Your task to perform on an android device: Is it going to rain today? Image 0: 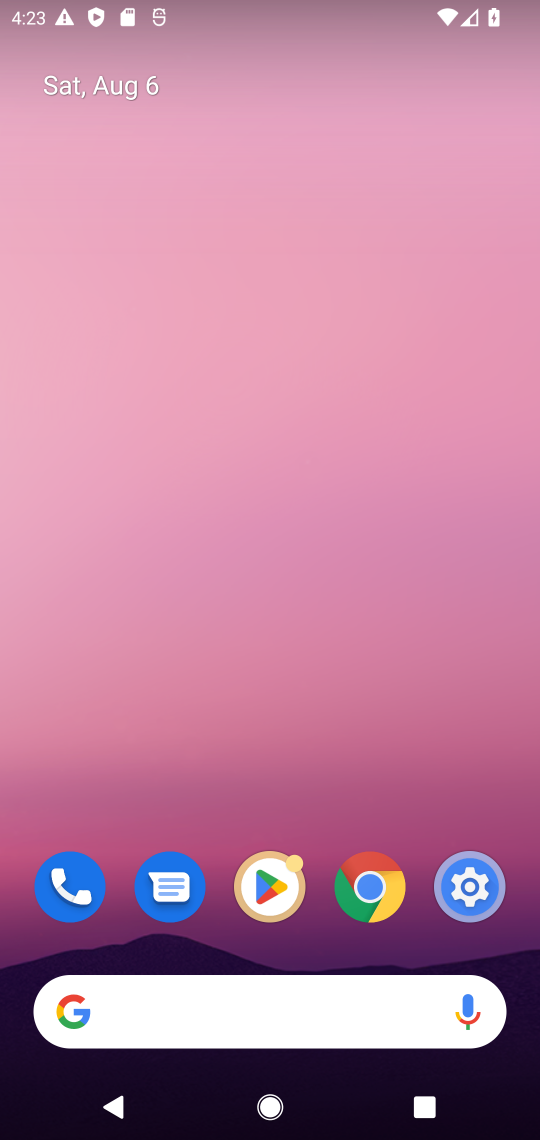
Step 0: drag from (252, 1012) to (257, 143)
Your task to perform on an android device: Is it going to rain today? Image 1: 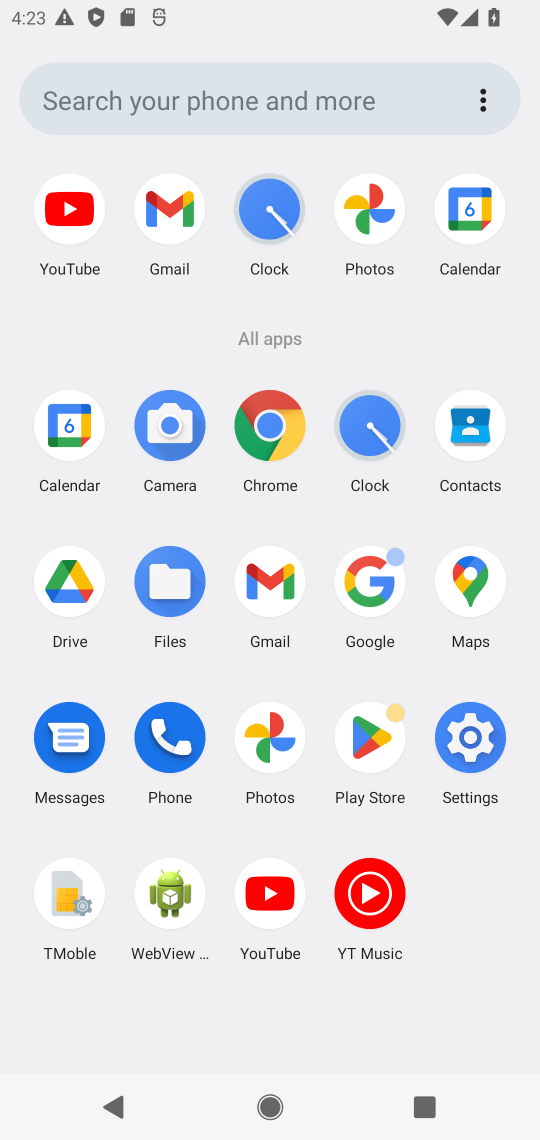
Step 1: click (278, 418)
Your task to perform on an android device: Is it going to rain today? Image 2: 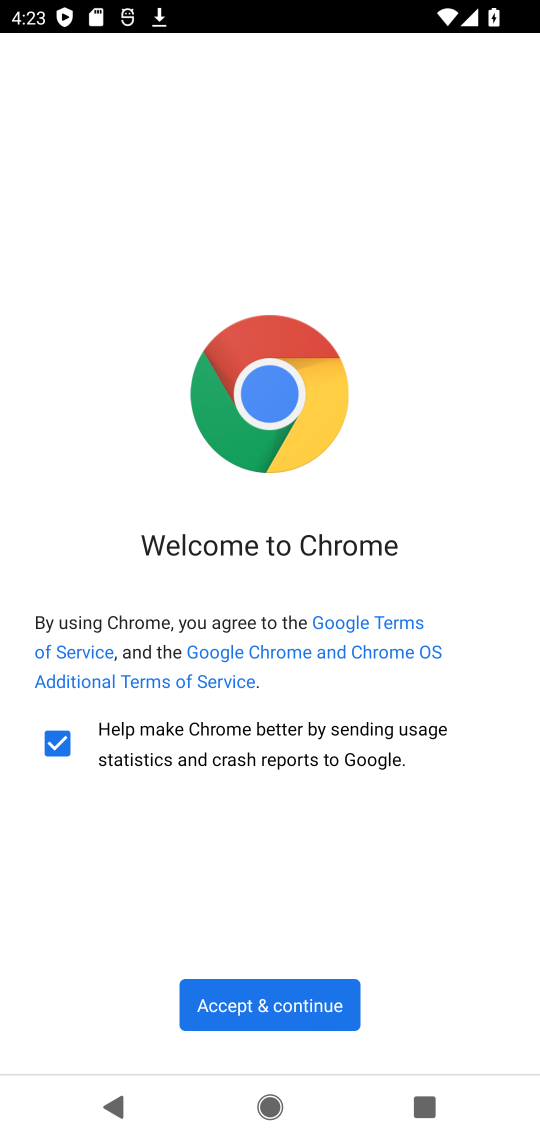
Step 2: click (271, 1018)
Your task to perform on an android device: Is it going to rain today? Image 3: 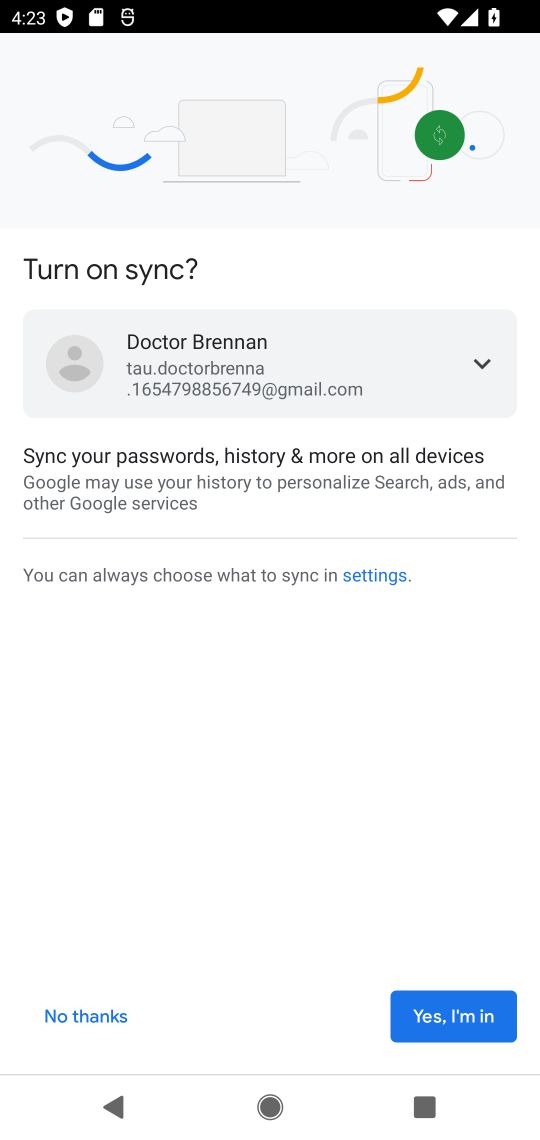
Step 3: click (430, 1029)
Your task to perform on an android device: Is it going to rain today? Image 4: 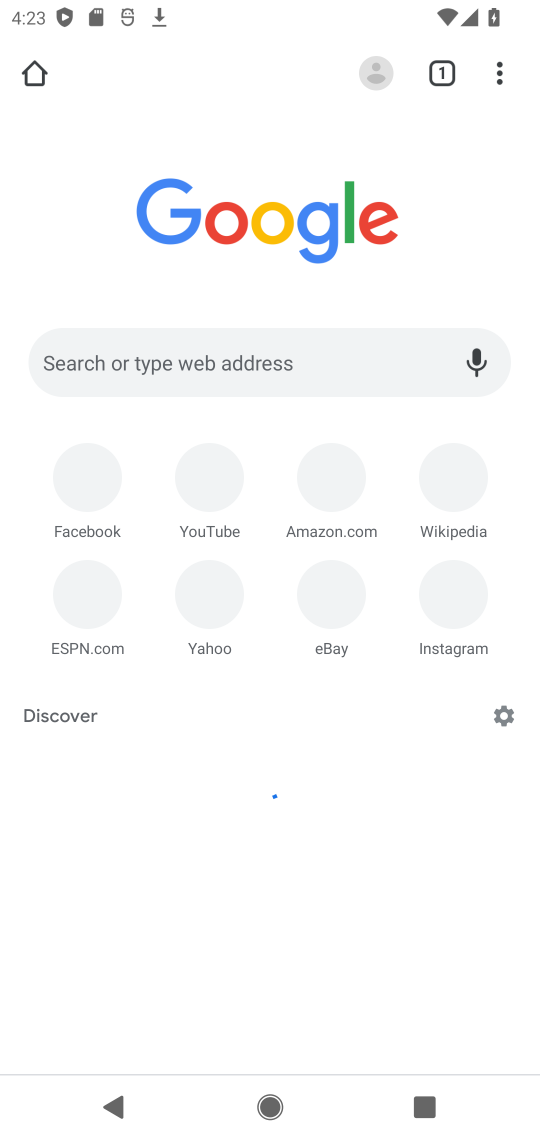
Step 4: click (225, 358)
Your task to perform on an android device: Is it going to rain today? Image 5: 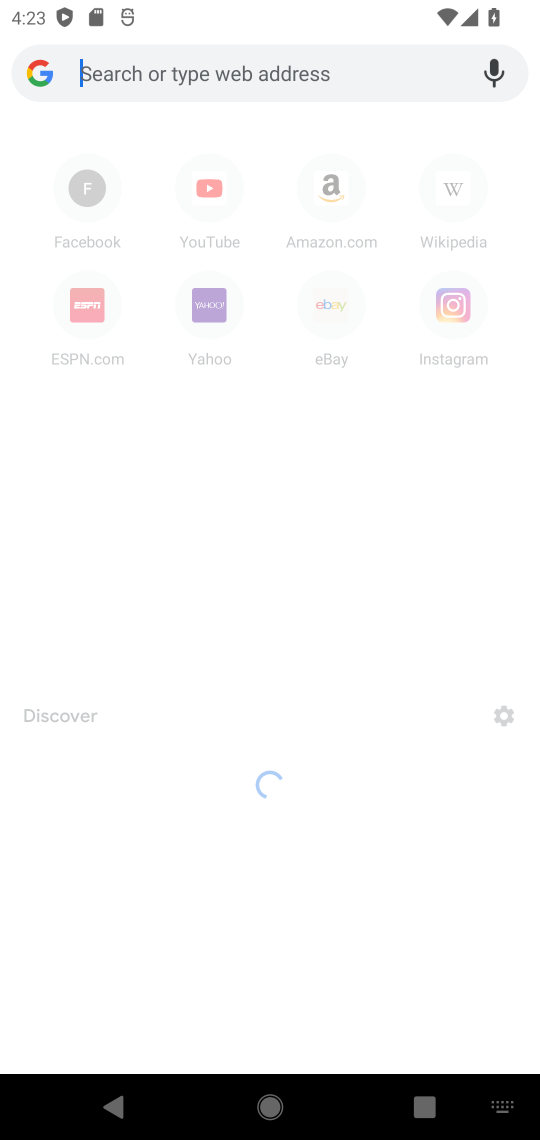
Step 5: type "weather today"
Your task to perform on an android device: Is it going to rain today? Image 6: 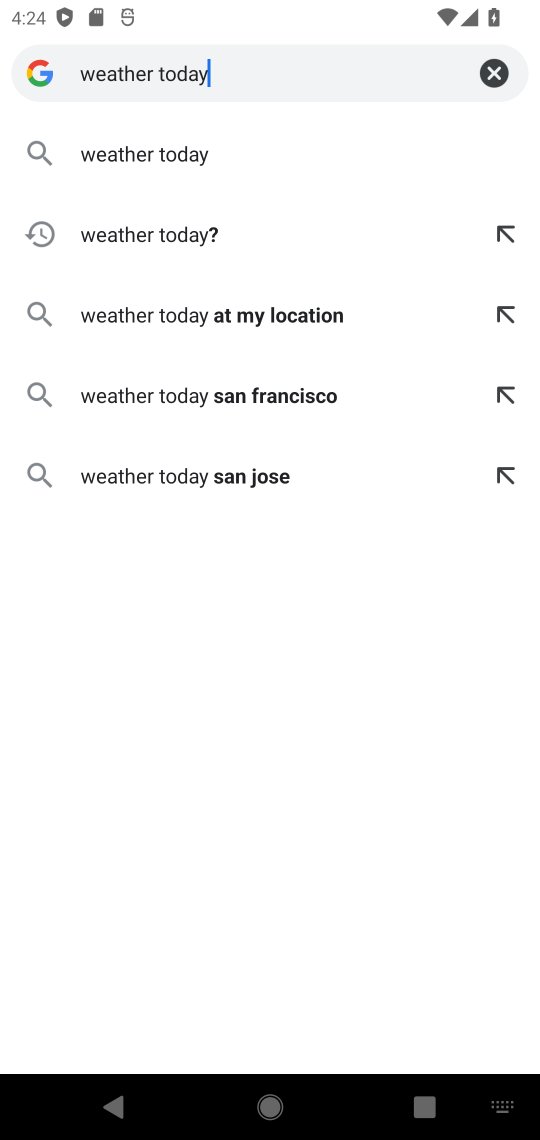
Step 6: click (154, 161)
Your task to perform on an android device: Is it going to rain today? Image 7: 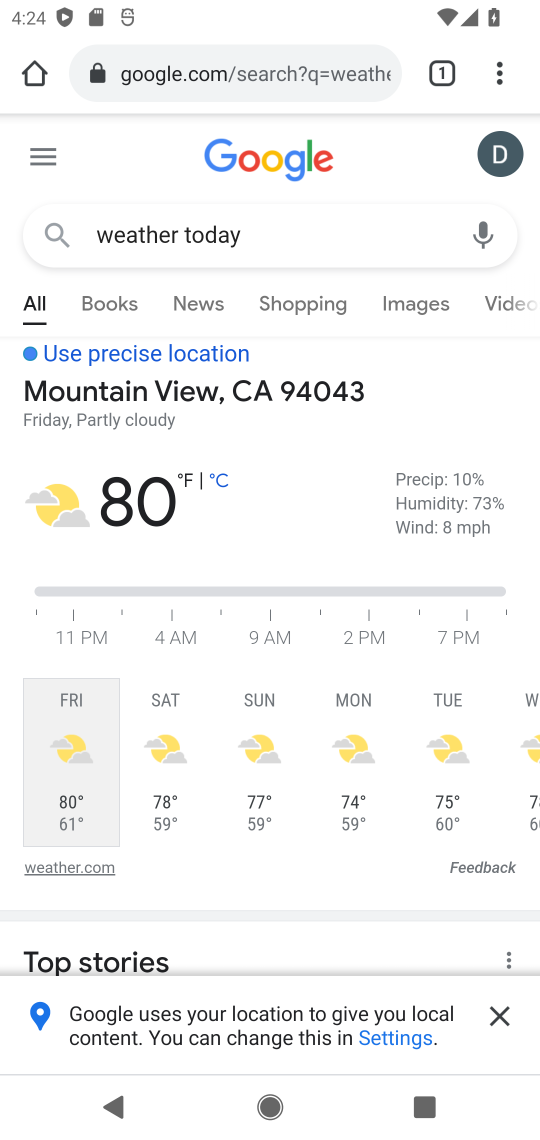
Step 7: task complete